Your task to perform on an android device: Turn off the flashlight Image 0: 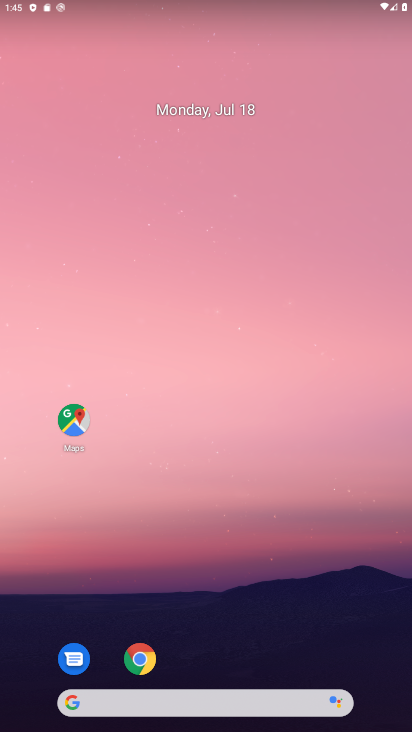
Step 0: drag from (279, 4) to (193, 559)
Your task to perform on an android device: Turn off the flashlight Image 1: 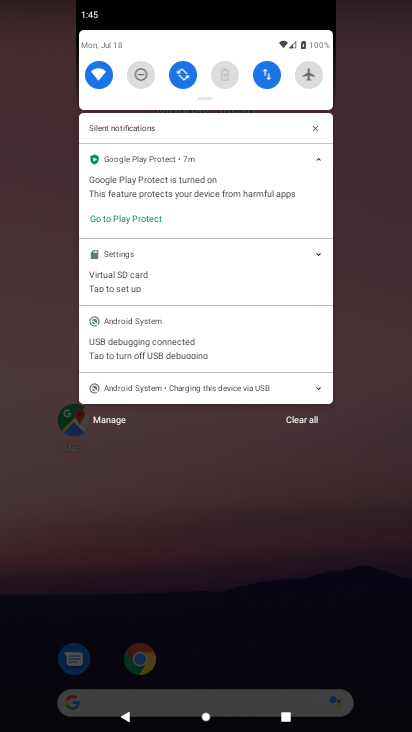
Step 1: drag from (247, 93) to (280, 469)
Your task to perform on an android device: Turn off the flashlight Image 2: 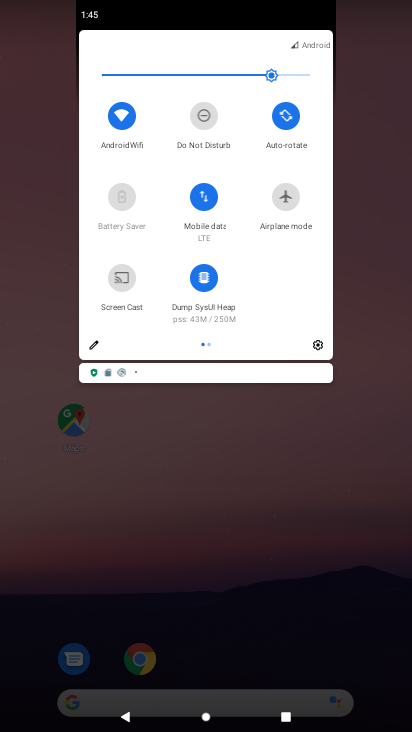
Step 2: click (95, 343)
Your task to perform on an android device: Turn off the flashlight Image 3: 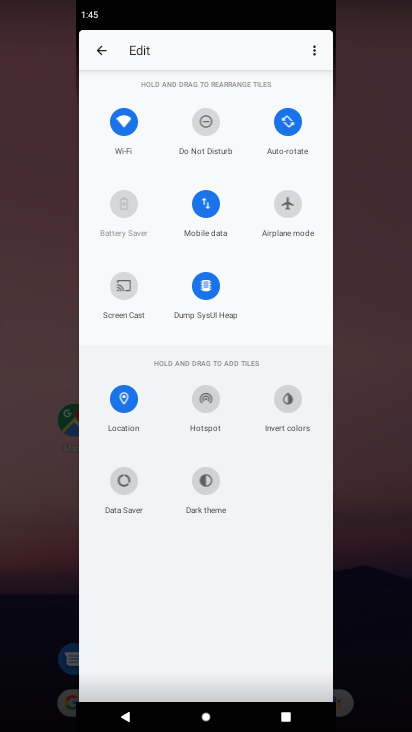
Step 3: task complete